Your task to perform on an android device: change your default location settings in chrome Image 0: 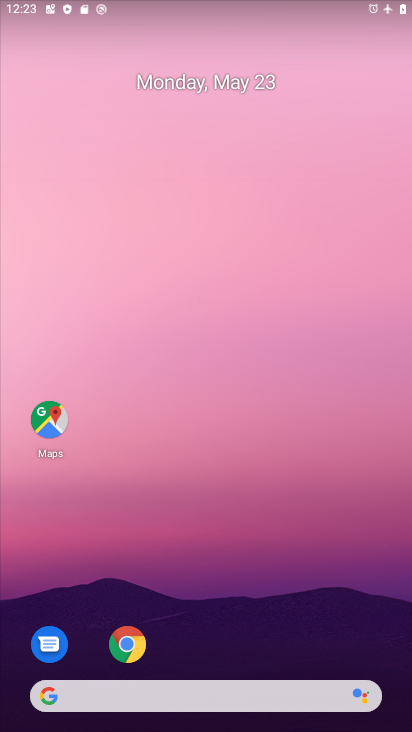
Step 0: drag from (388, 635) to (230, 51)
Your task to perform on an android device: change your default location settings in chrome Image 1: 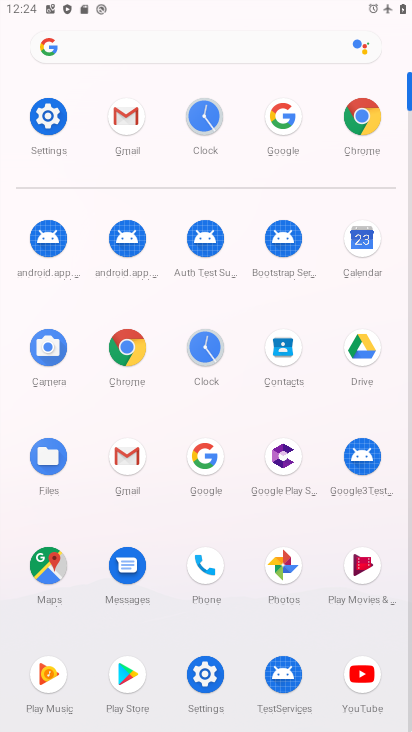
Step 1: click (111, 364)
Your task to perform on an android device: change your default location settings in chrome Image 2: 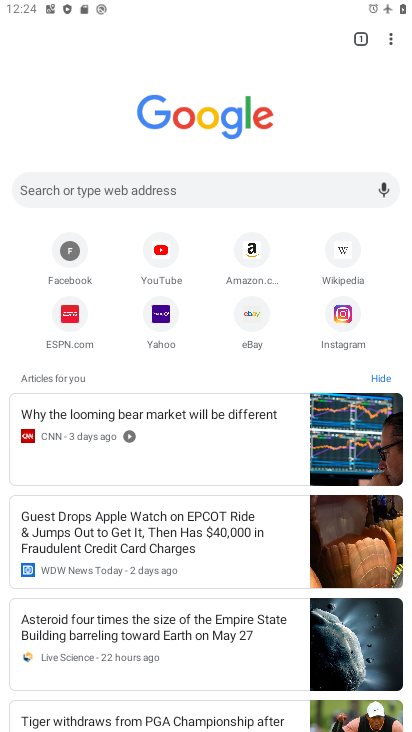
Step 2: click (389, 36)
Your task to perform on an android device: change your default location settings in chrome Image 3: 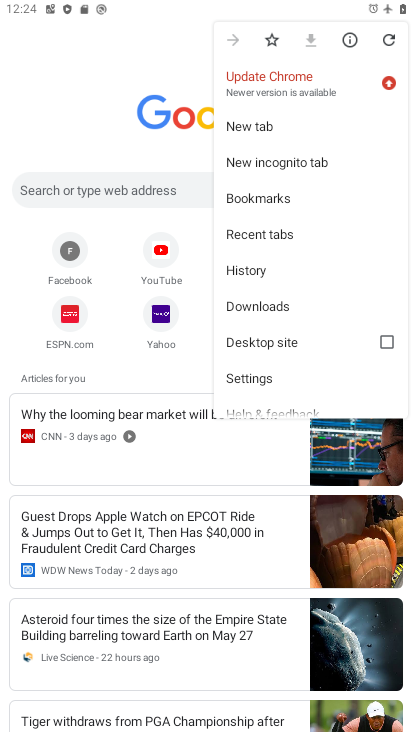
Step 3: click (272, 378)
Your task to perform on an android device: change your default location settings in chrome Image 4: 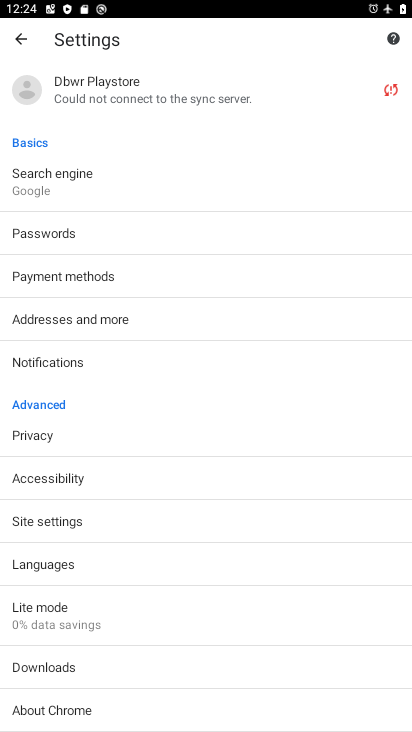
Step 4: click (95, 195)
Your task to perform on an android device: change your default location settings in chrome Image 5: 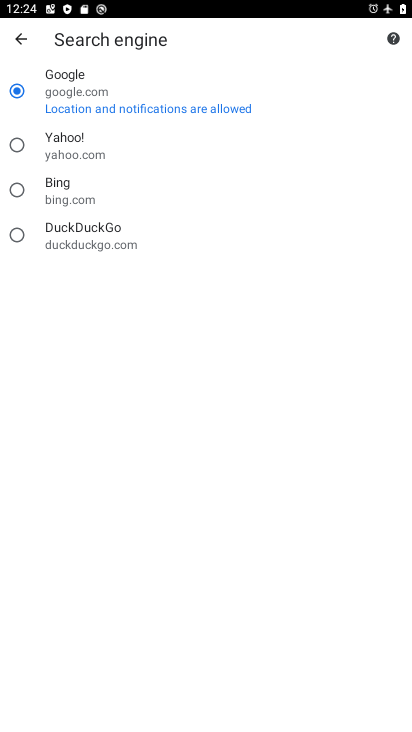
Step 5: click (95, 195)
Your task to perform on an android device: change your default location settings in chrome Image 6: 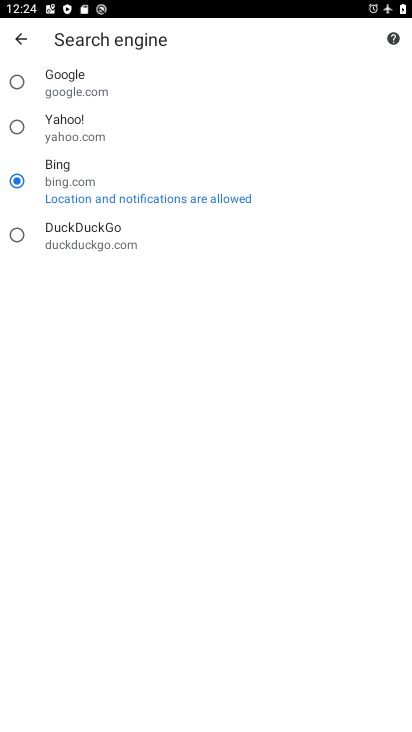
Step 6: task complete